Your task to perform on an android device: delete the emails in spam in the gmail app Image 0: 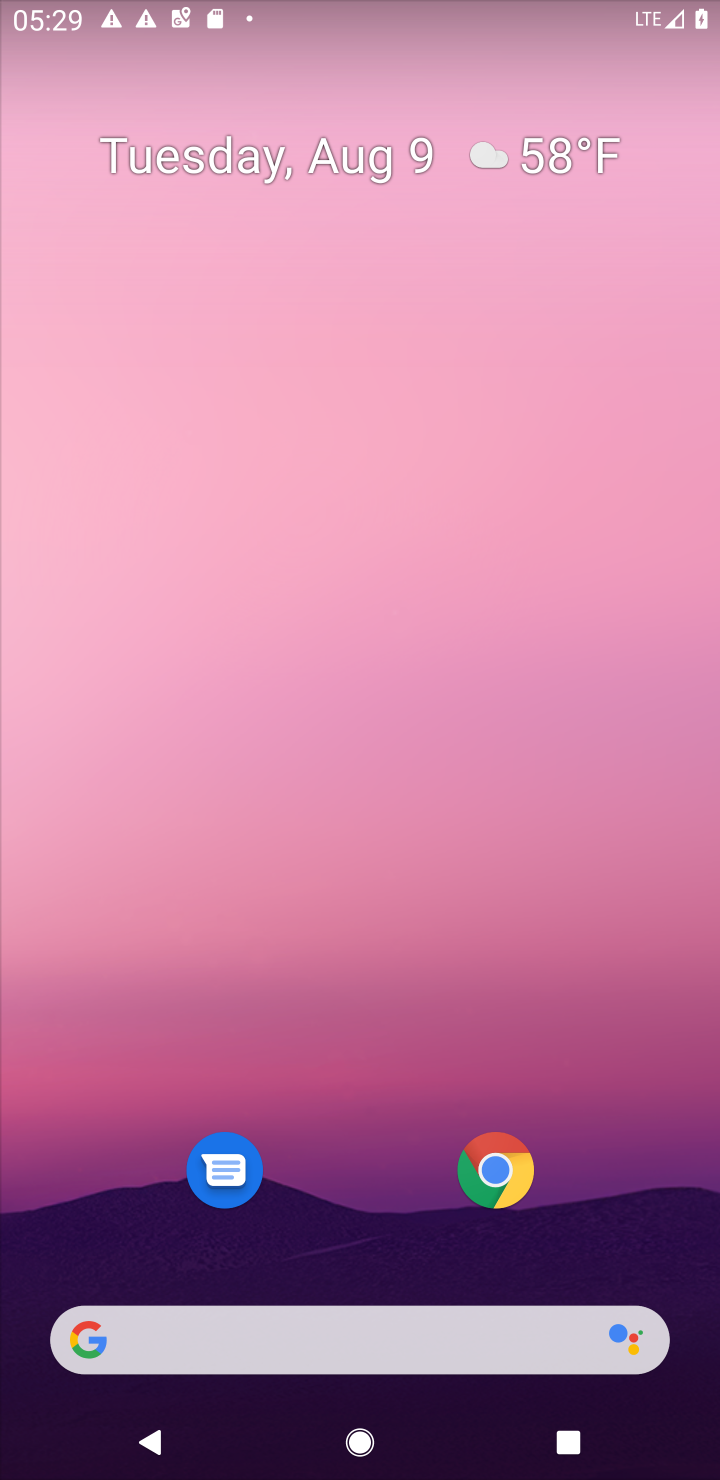
Step 0: drag from (357, 1218) to (675, 365)
Your task to perform on an android device: delete the emails in spam in the gmail app Image 1: 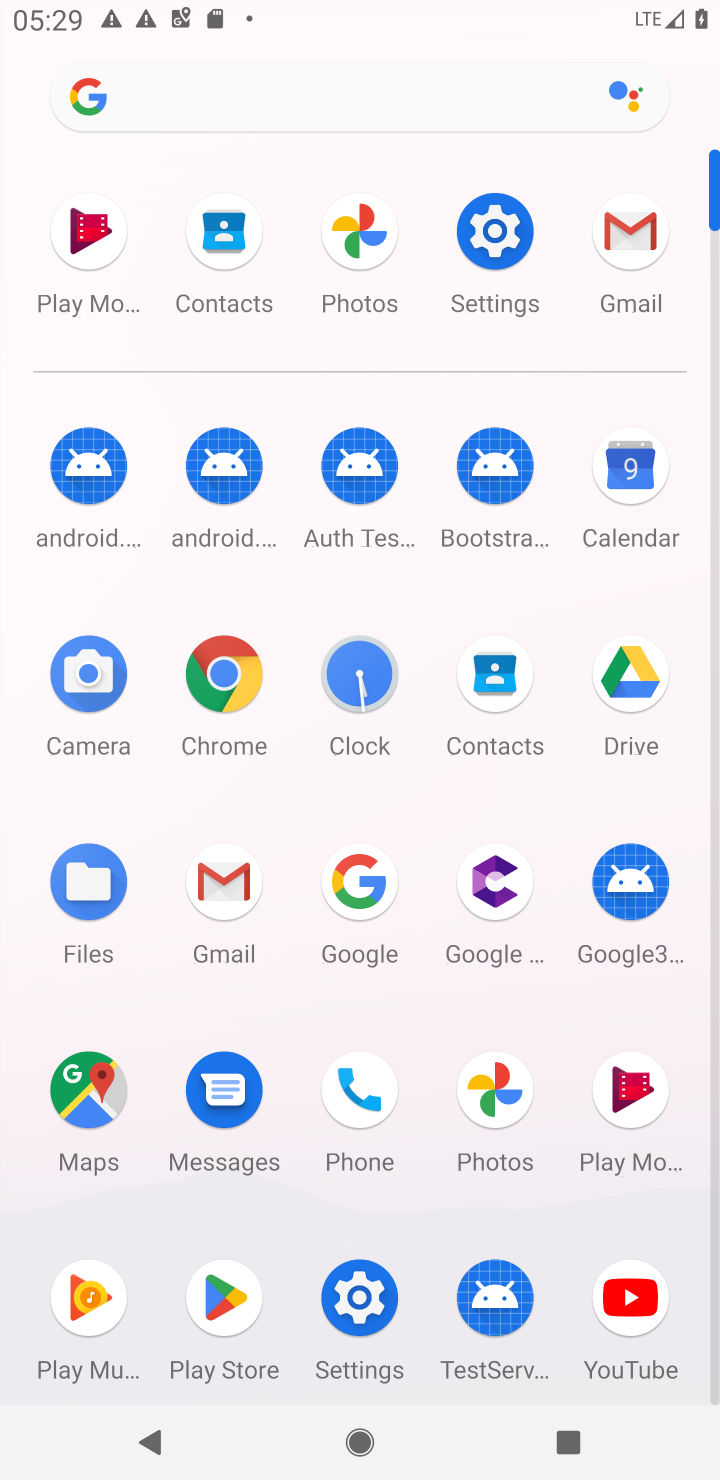
Step 1: click (640, 234)
Your task to perform on an android device: delete the emails in spam in the gmail app Image 2: 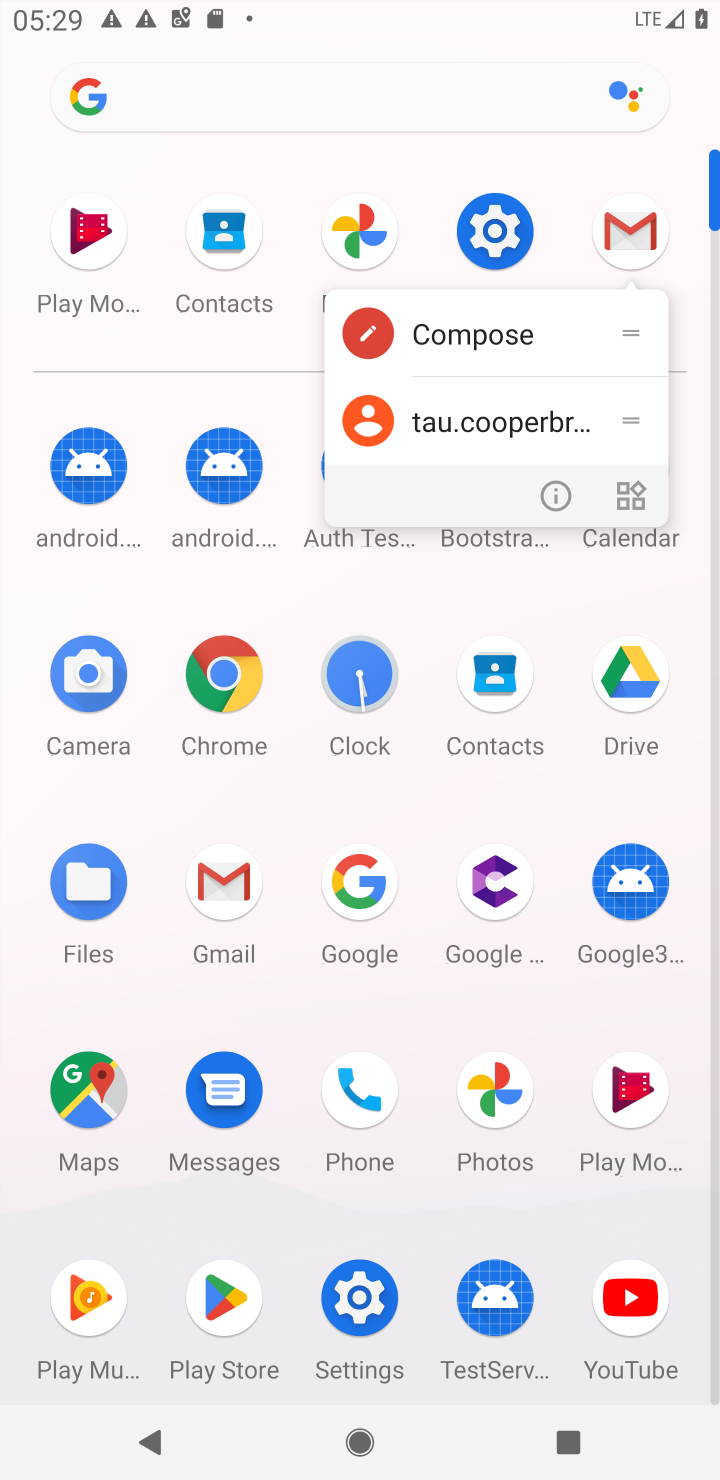
Step 2: click (626, 240)
Your task to perform on an android device: delete the emails in spam in the gmail app Image 3: 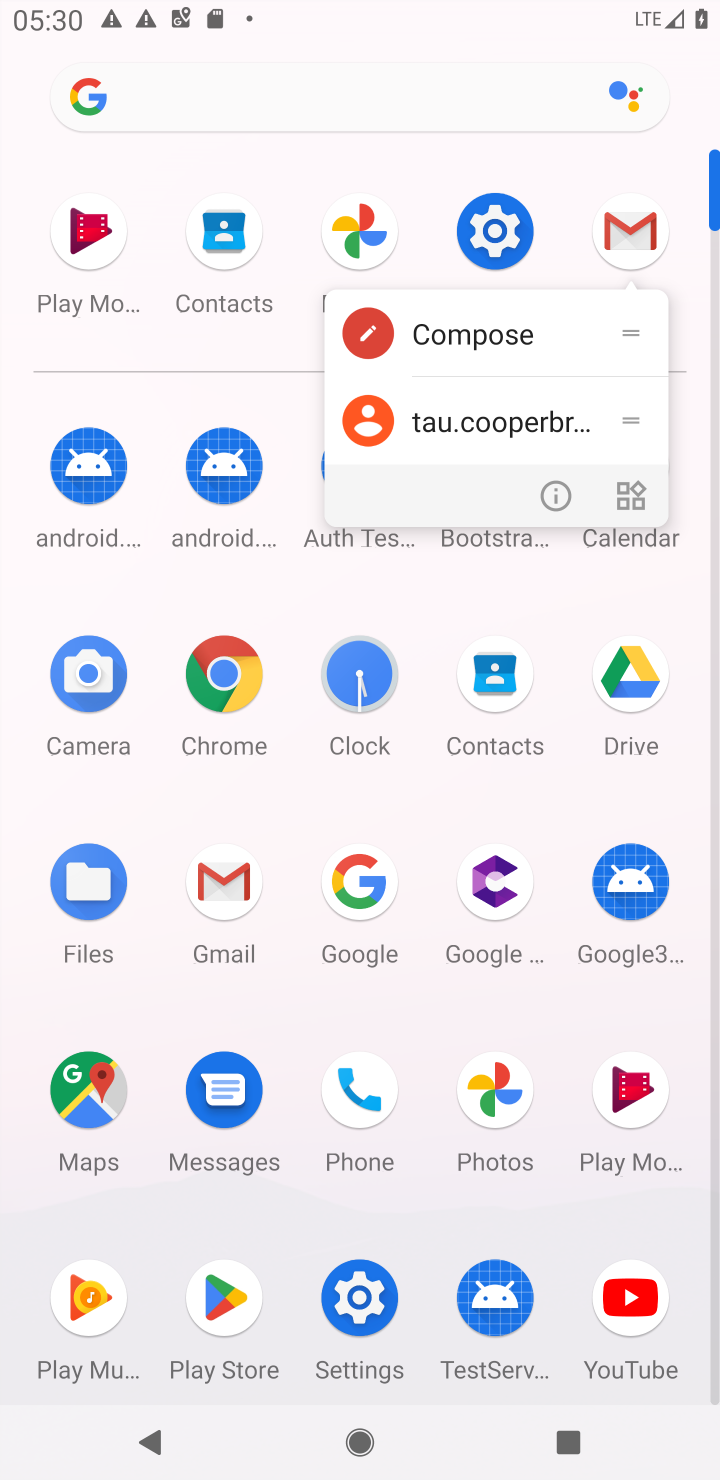
Step 3: click (626, 240)
Your task to perform on an android device: delete the emails in spam in the gmail app Image 4: 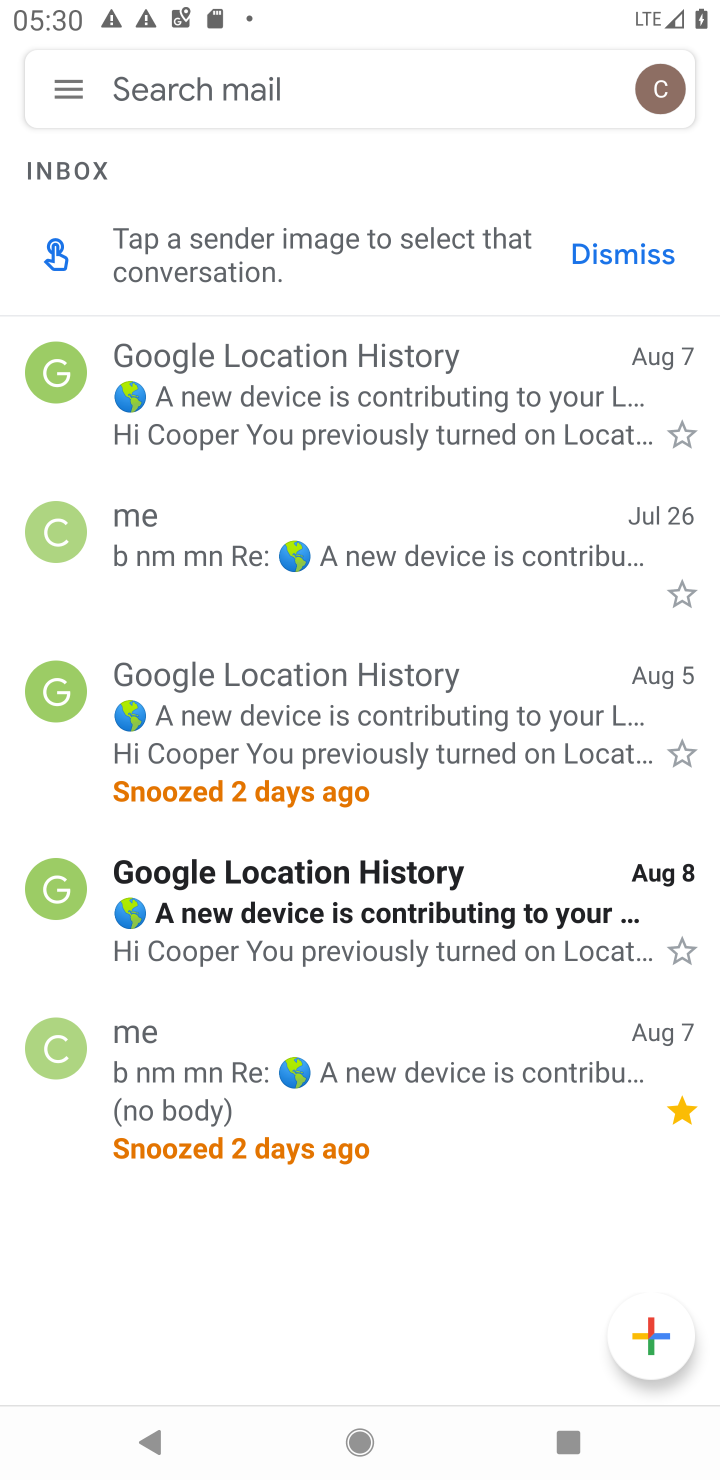
Step 4: click (56, 85)
Your task to perform on an android device: delete the emails in spam in the gmail app Image 5: 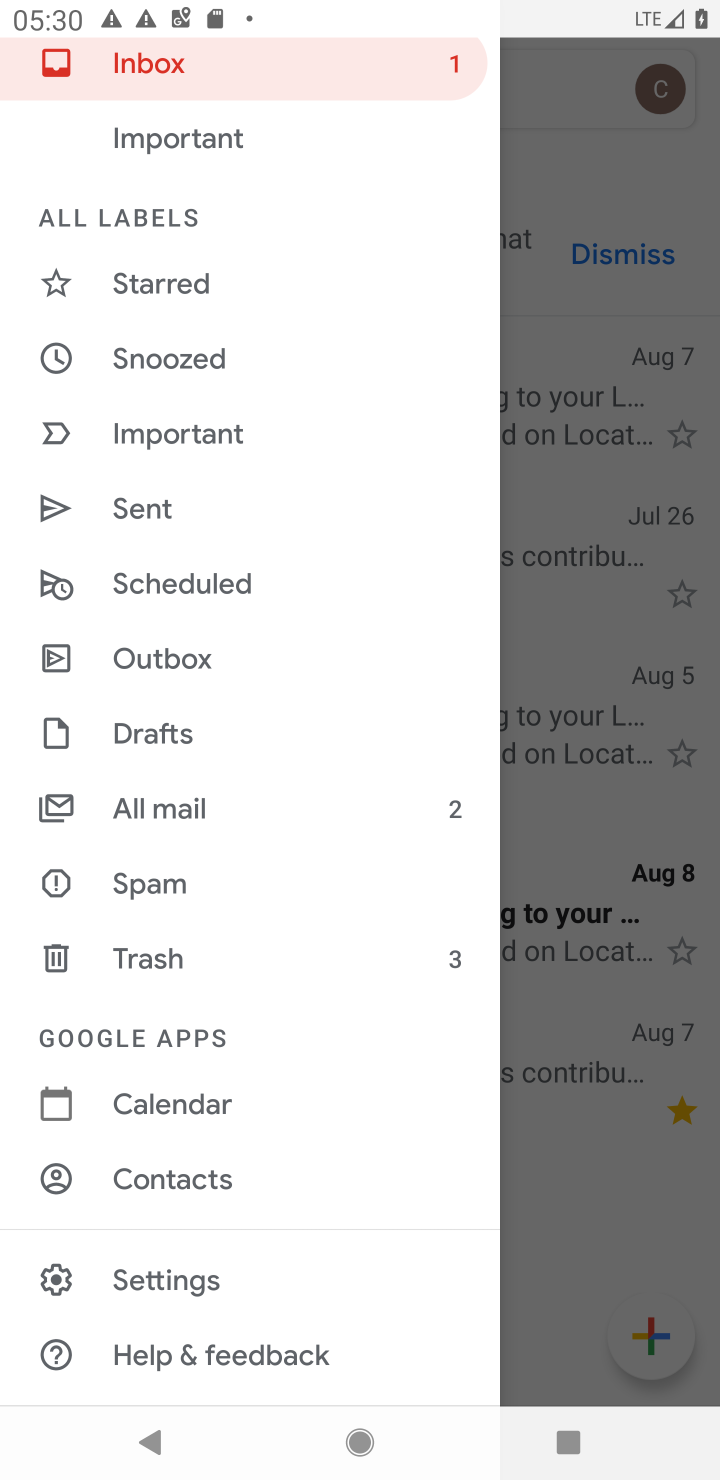
Step 5: click (159, 895)
Your task to perform on an android device: delete the emails in spam in the gmail app Image 6: 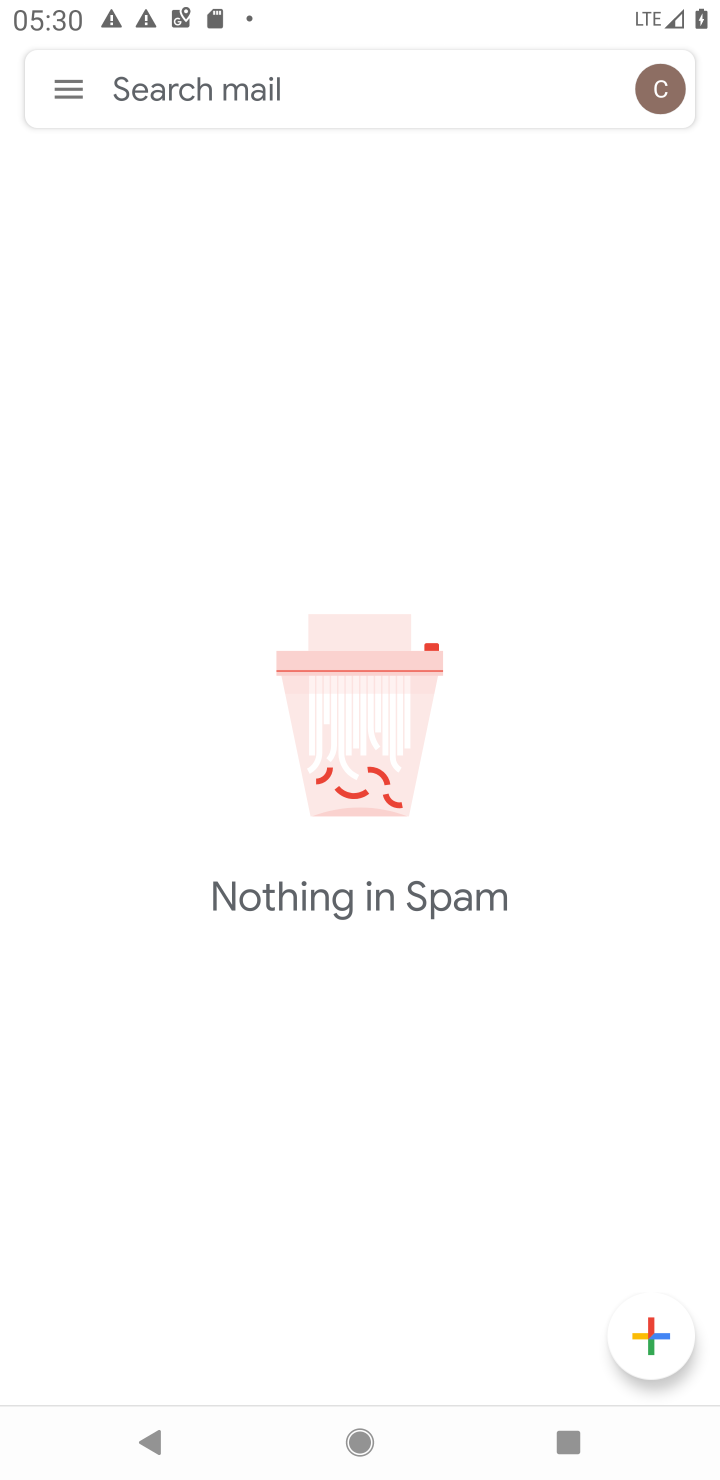
Step 6: task complete